Your task to perform on an android device: What is the news today? Image 0: 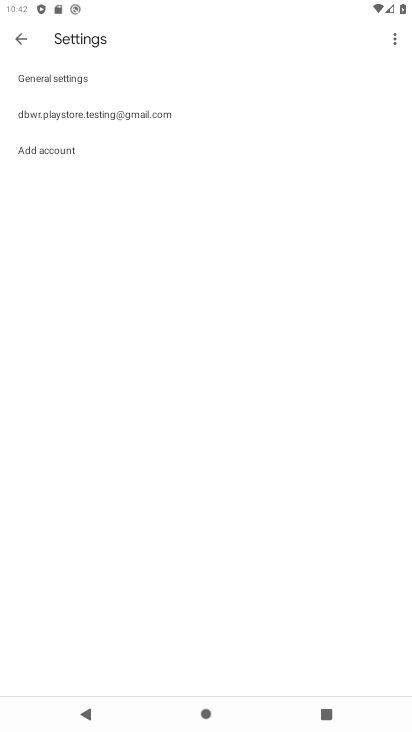
Step 0: press back button
Your task to perform on an android device: What is the news today? Image 1: 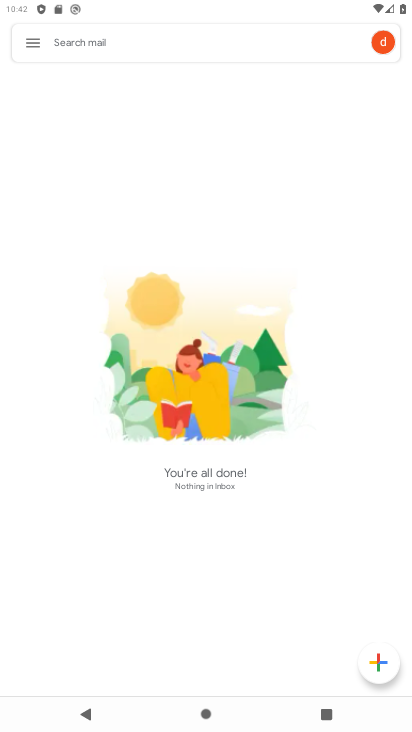
Step 1: press home button
Your task to perform on an android device: What is the news today? Image 2: 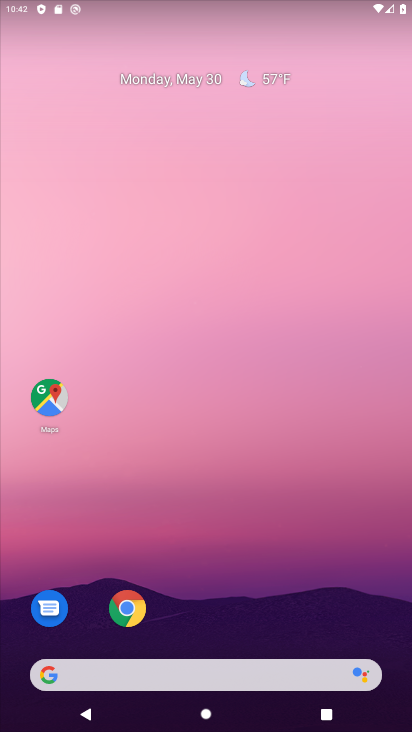
Step 2: drag from (250, 599) to (232, 7)
Your task to perform on an android device: What is the news today? Image 3: 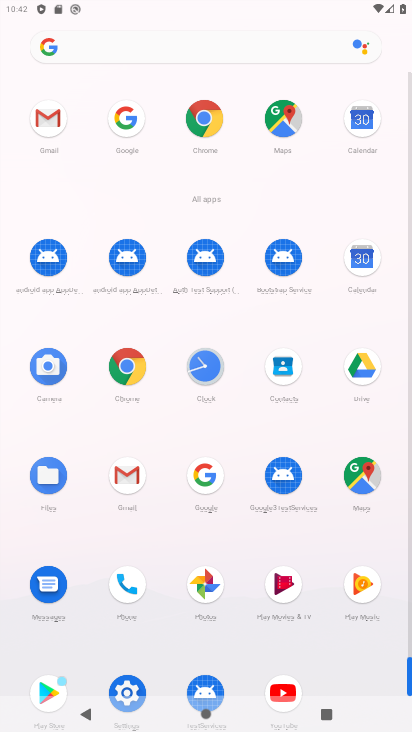
Step 3: click (205, 112)
Your task to perform on an android device: What is the news today? Image 4: 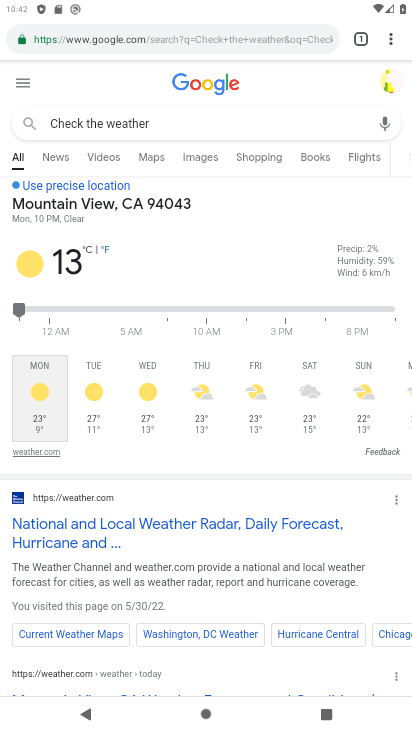
Step 4: click (151, 38)
Your task to perform on an android device: What is the news today? Image 5: 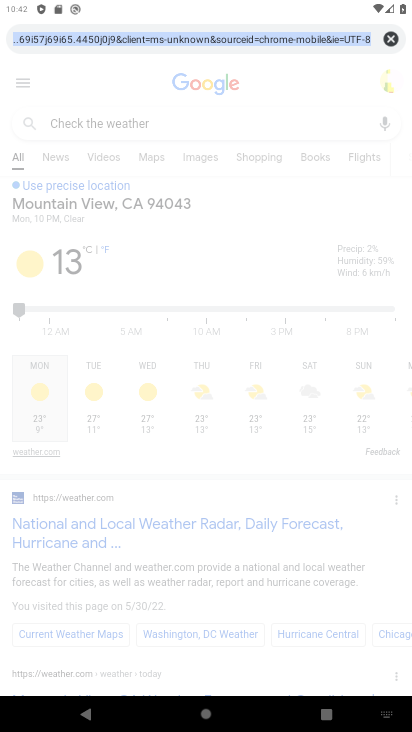
Step 5: click (396, 38)
Your task to perform on an android device: What is the news today? Image 6: 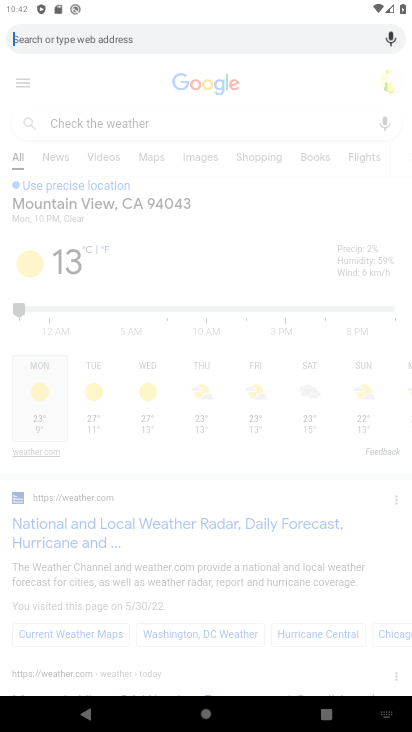
Step 6: type "What is the news today?"
Your task to perform on an android device: What is the news today? Image 7: 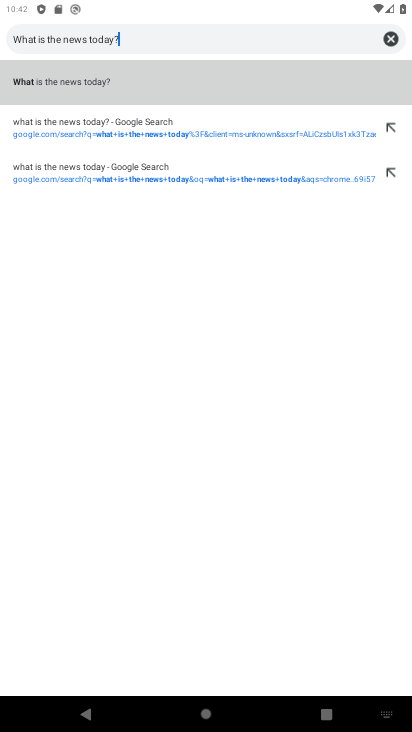
Step 7: click (120, 79)
Your task to perform on an android device: What is the news today? Image 8: 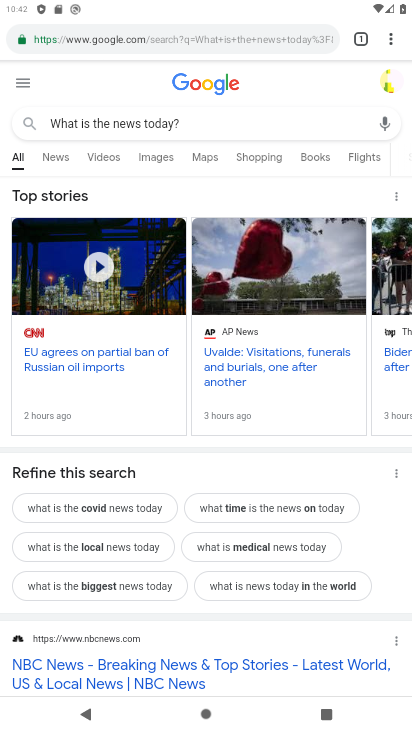
Step 8: task complete